Your task to perform on an android device: Go to settings Image 0: 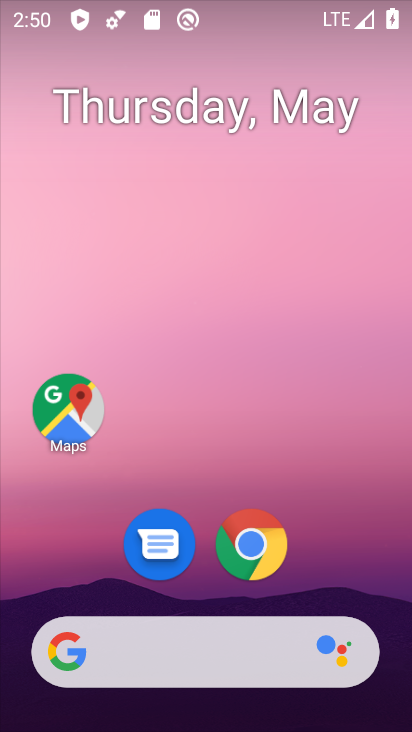
Step 0: drag from (186, 721) to (316, 104)
Your task to perform on an android device: Go to settings Image 1: 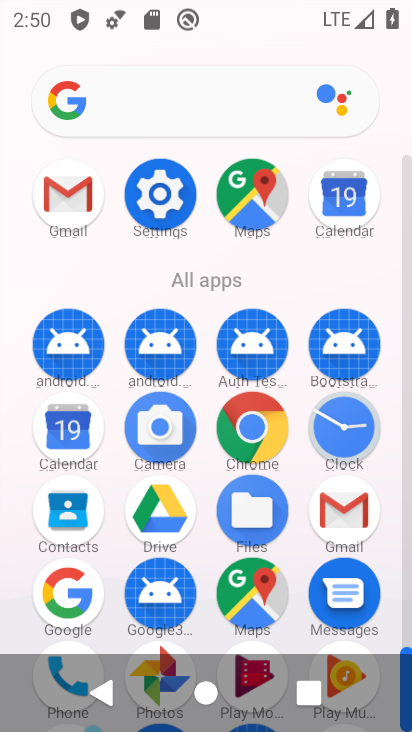
Step 1: click (161, 197)
Your task to perform on an android device: Go to settings Image 2: 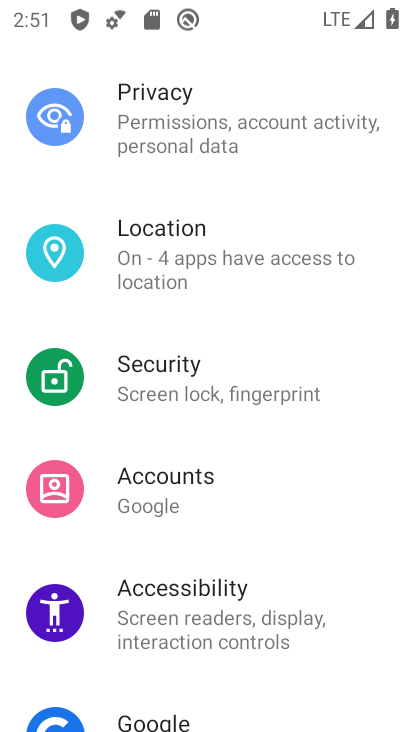
Step 2: task complete